Your task to perform on an android device: turn smart compose on in the gmail app Image 0: 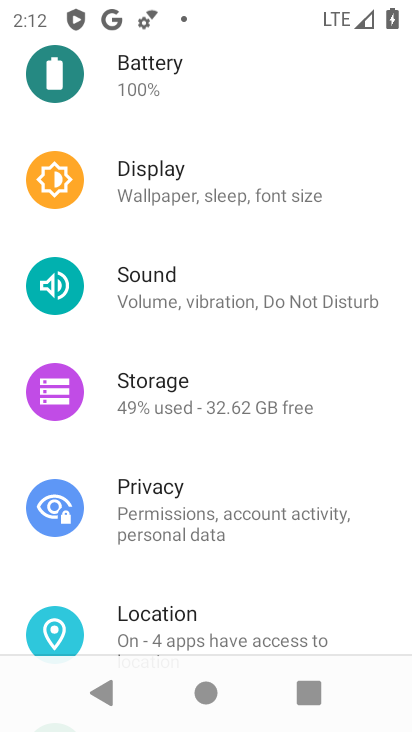
Step 0: press home button
Your task to perform on an android device: turn smart compose on in the gmail app Image 1: 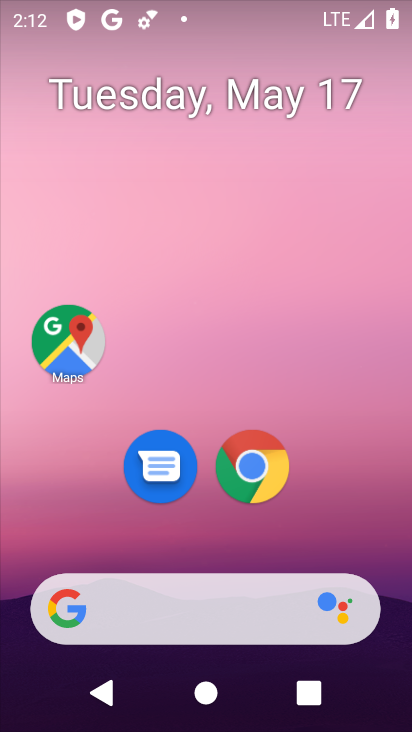
Step 1: drag from (312, 541) to (210, 88)
Your task to perform on an android device: turn smart compose on in the gmail app Image 2: 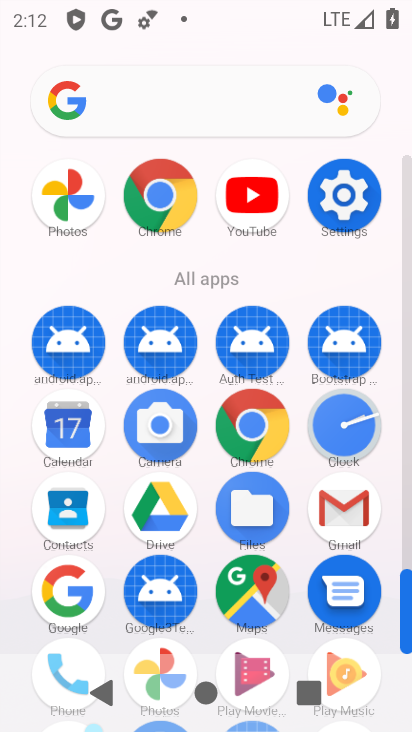
Step 2: click (354, 502)
Your task to perform on an android device: turn smart compose on in the gmail app Image 3: 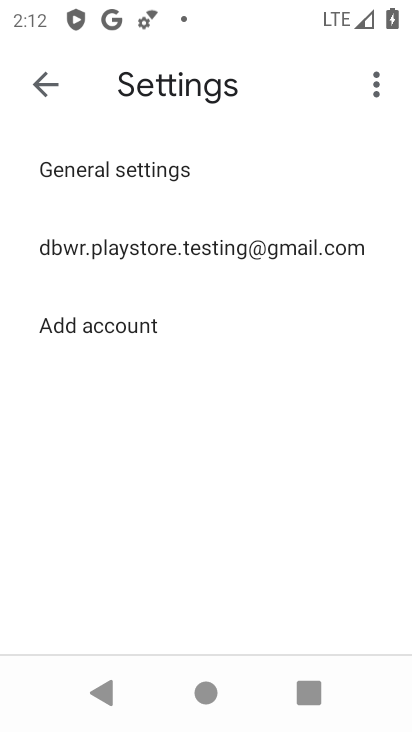
Step 3: click (87, 247)
Your task to perform on an android device: turn smart compose on in the gmail app Image 4: 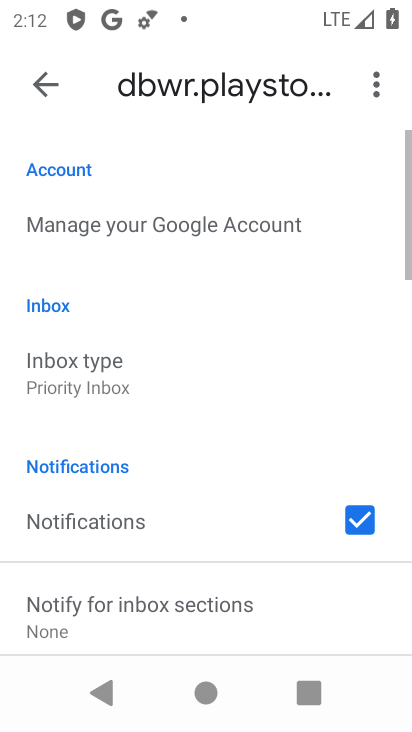
Step 4: task complete